Your task to perform on an android device: turn on showing notifications on the lock screen Image 0: 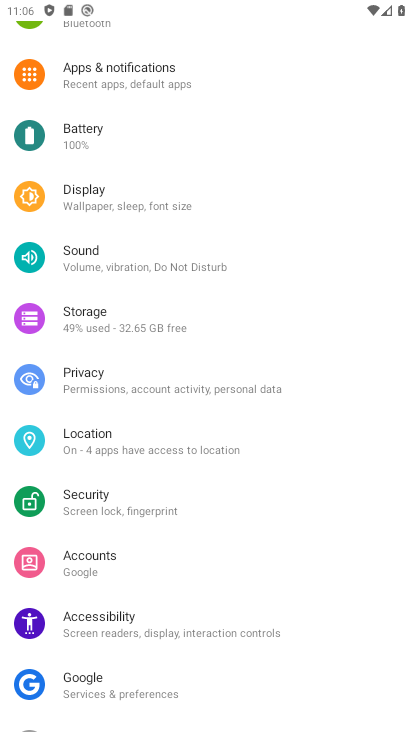
Step 0: click (163, 76)
Your task to perform on an android device: turn on showing notifications on the lock screen Image 1: 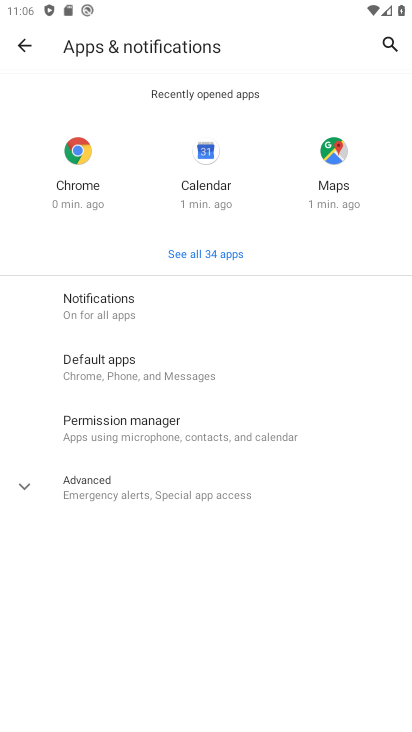
Step 1: click (114, 311)
Your task to perform on an android device: turn on showing notifications on the lock screen Image 2: 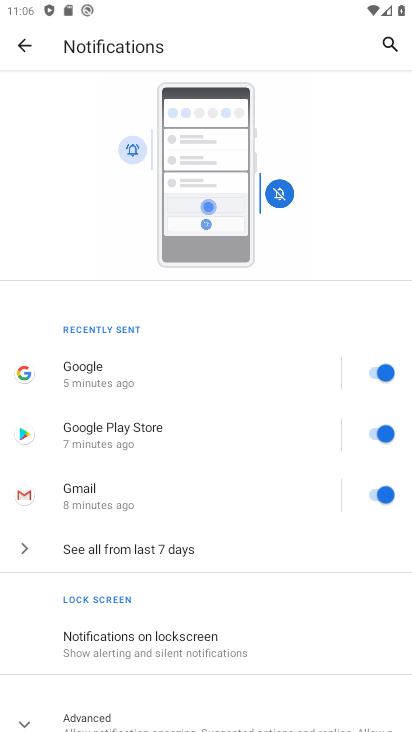
Step 2: click (160, 646)
Your task to perform on an android device: turn on showing notifications on the lock screen Image 3: 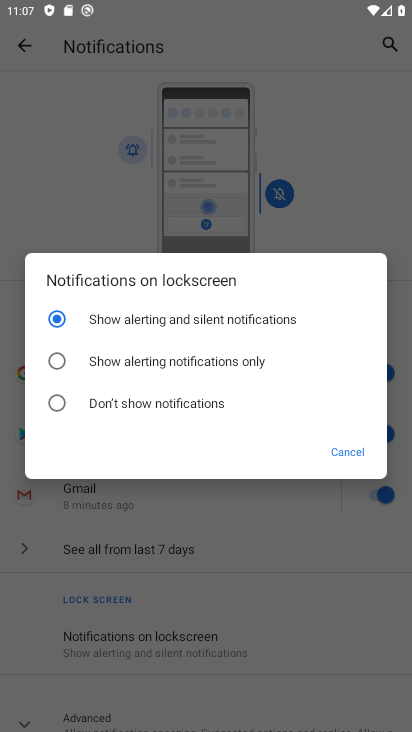
Step 3: task complete